Your task to perform on an android device: Go to CNN.com Image 0: 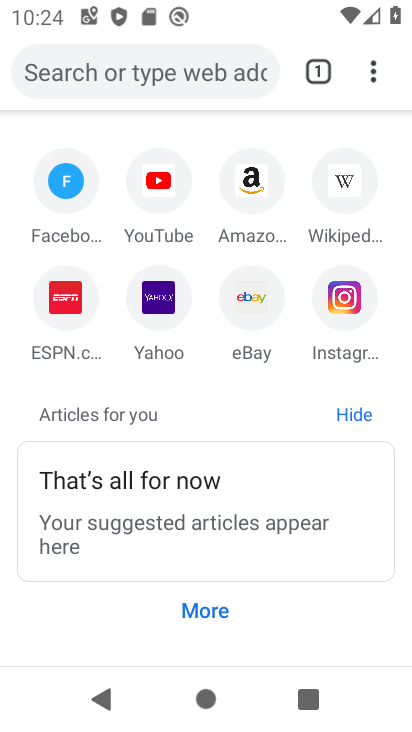
Step 0: click (136, 63)
Your task to perform on an android device: Go to CNN.com Image 1: 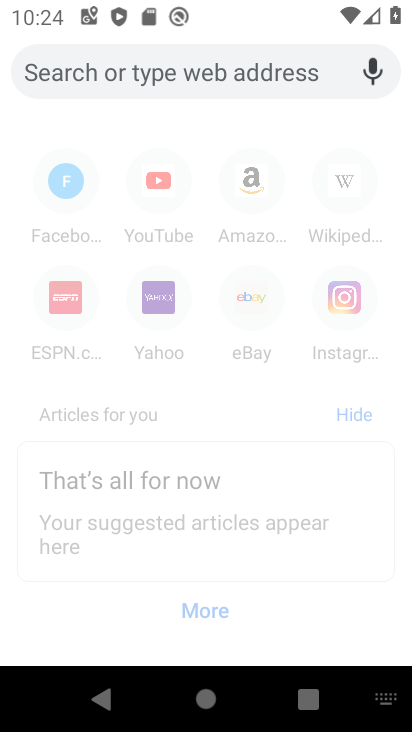
Step 1: type "CNN.com"
Your task to perform on an android device: Go to CNN.com Image 2: 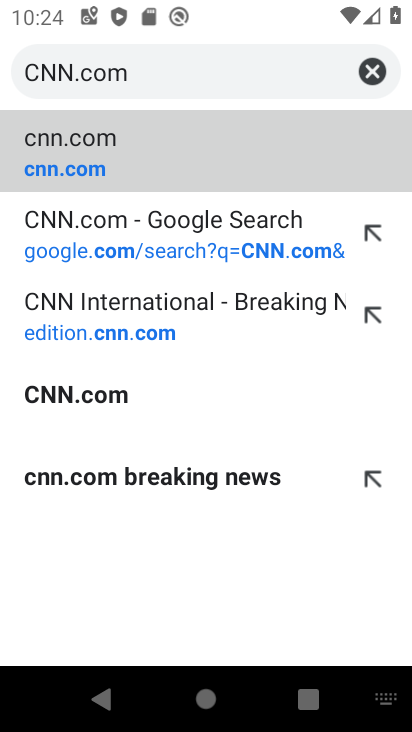
Step 2: click (79, 162)
Your task to perform on an android device: Go to CNN.com Image 3: 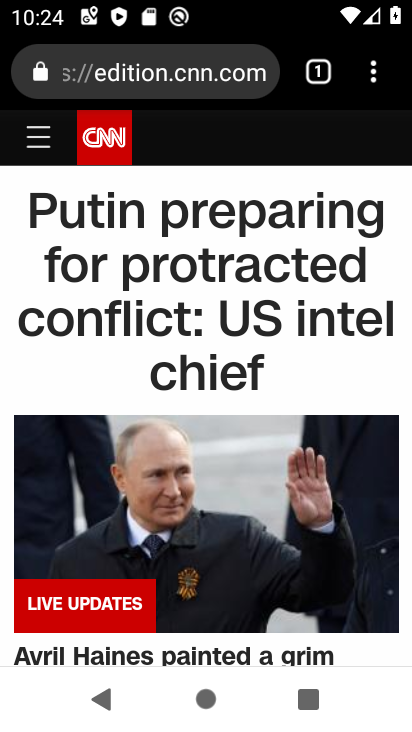
Step 3: task complete